Your task to perform on an android device: Go to display settings Image 0: 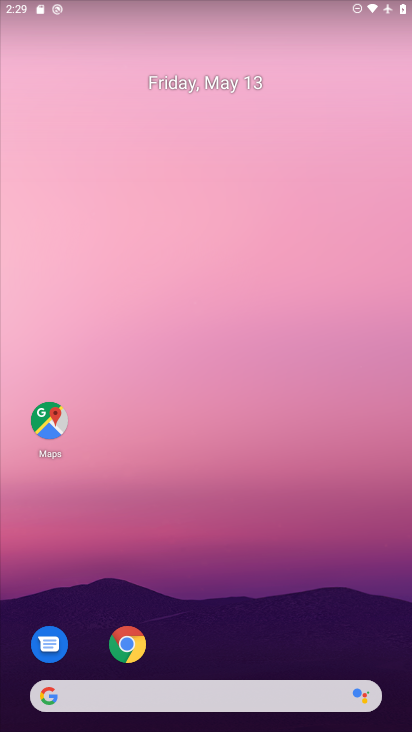
Step 0: drag from (294, 614) to (172, 15)
Your task to perform on an android device: Go to display settings Image 1: 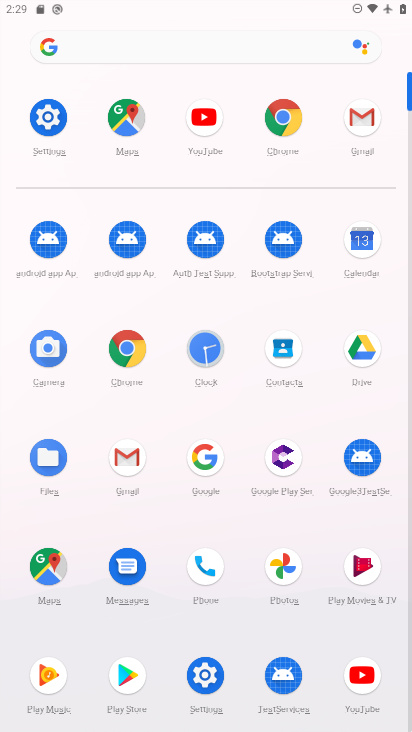
Step 1: click (198, 689)
Your task to perform on an android device: Go to display settings Image 2: 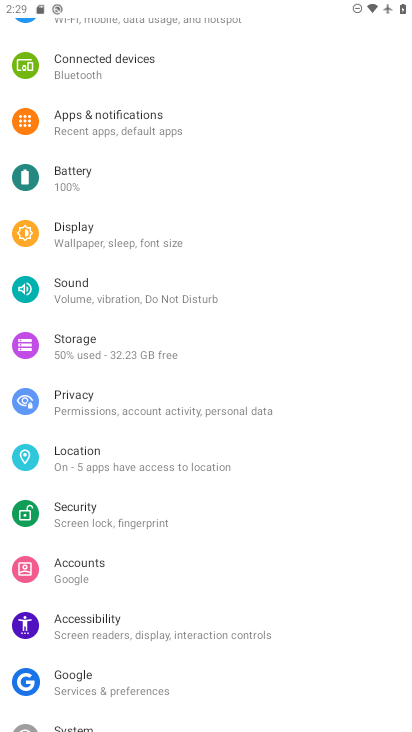
Step 2: click (86, 236)
Your task to perform on an android device: Go to display settings Image 3: 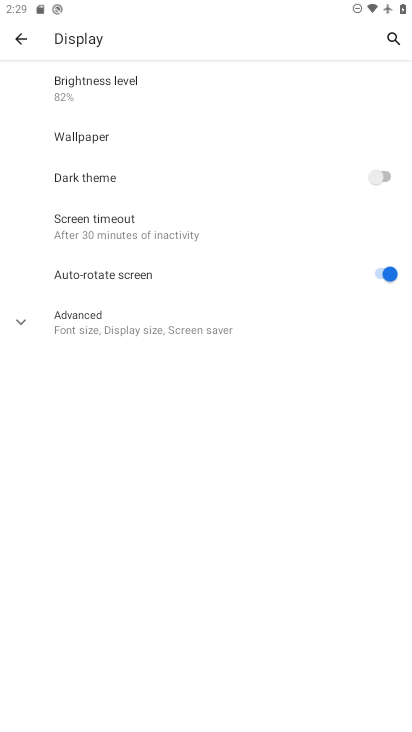
Step 3: task complete